Your task to perform on an android device: turn notification dots on Image 0: 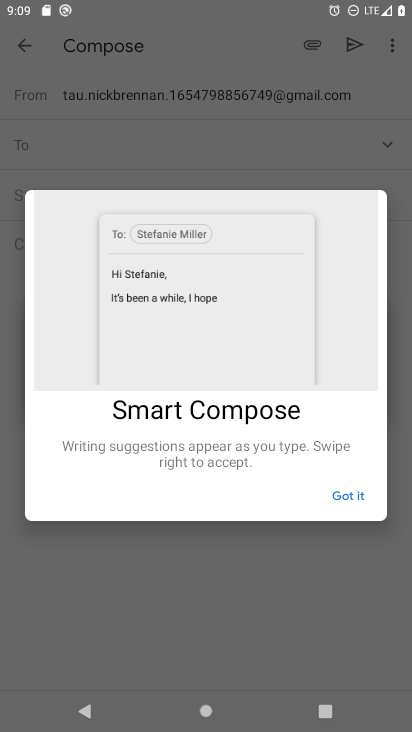
Step 0: press home button
Your task to perform on an android device: turn notification dots on Image 1: 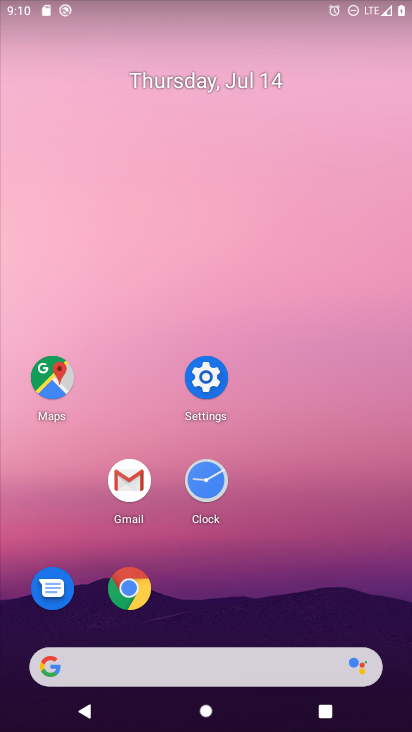
Step 1: click (203, 370)
Your task to perform on an android device: turn notification dots on Image 2: 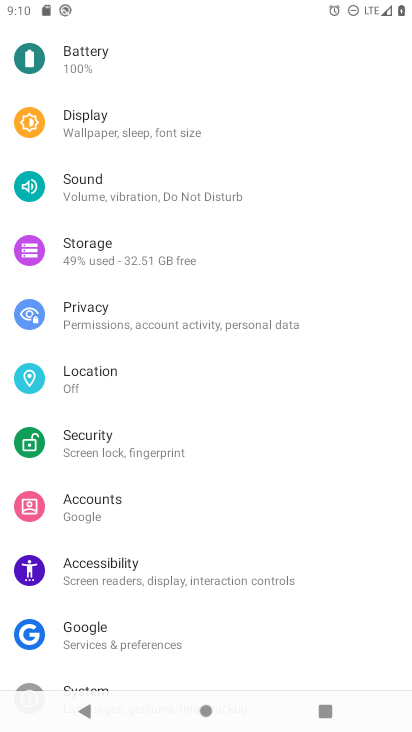
Step 2: drag from (198, 99) to (189, 500)
Your task to perform on an android device: turn notification dots on Image 3: 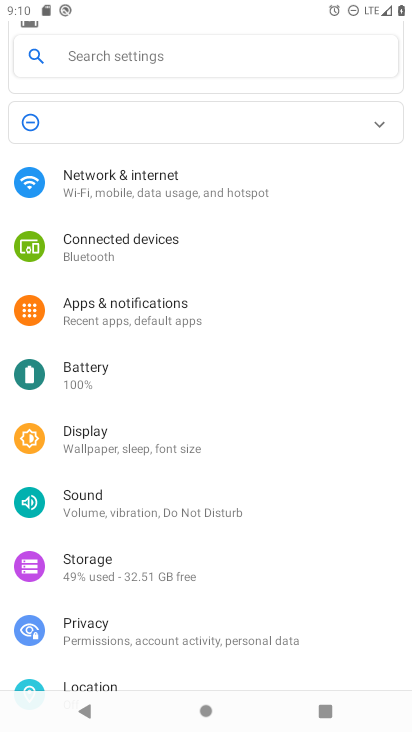
Step 3: click (113, 301)
Your task to perform on an android device: turn notification dots on Image 4: 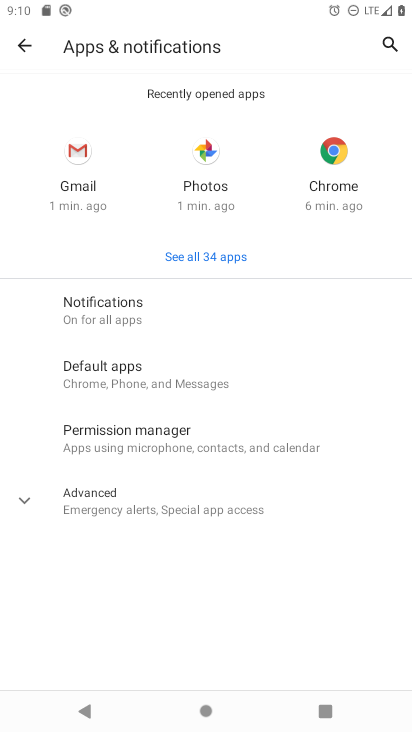
Step 4: click (78, 305)
Your task to perform on an android device: turn notification dots on Image 5: 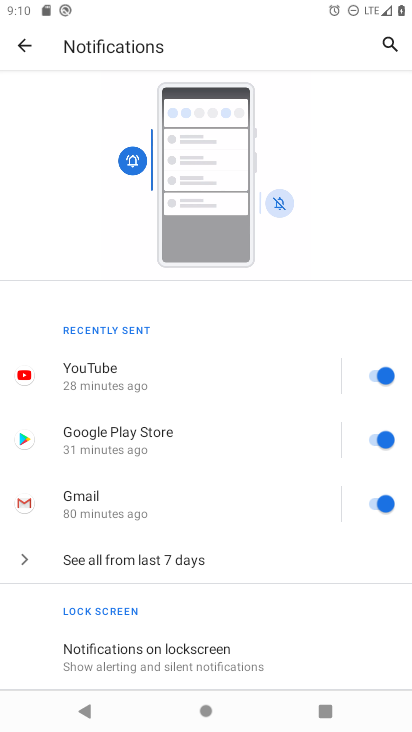
Step 5: drag from (259, 622) to (253, 257)
Your task to perform on an android device: turn notification dots on Image 6: 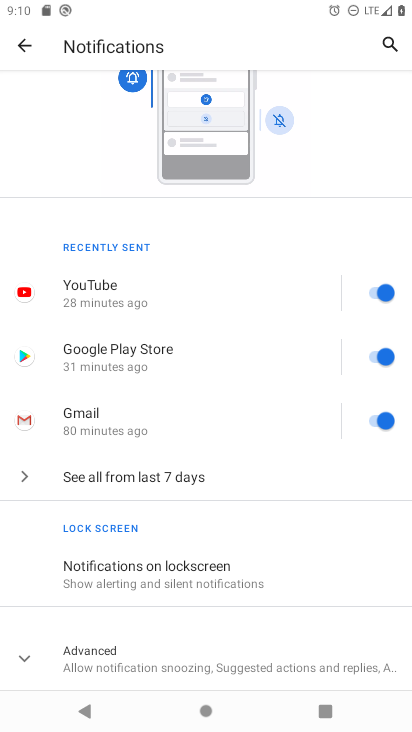
Step 6: click (29, 650)
Your task to perform on an android device: turn notification dots on Image 7: 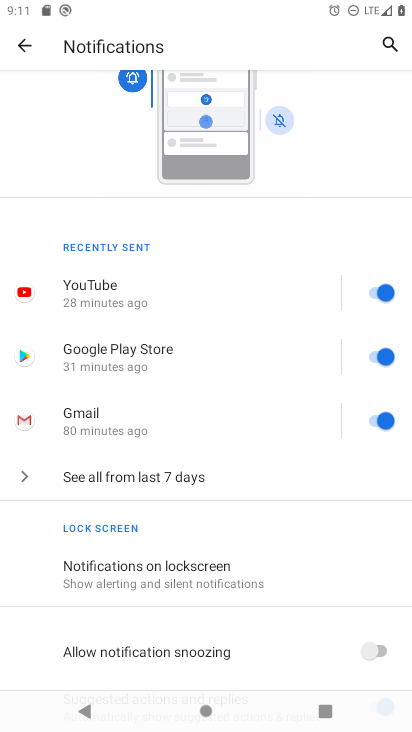
Step 7: drag from (323, 604) to (301, 271)
Your task to perform on an android device: turn notification dots on Image 8: 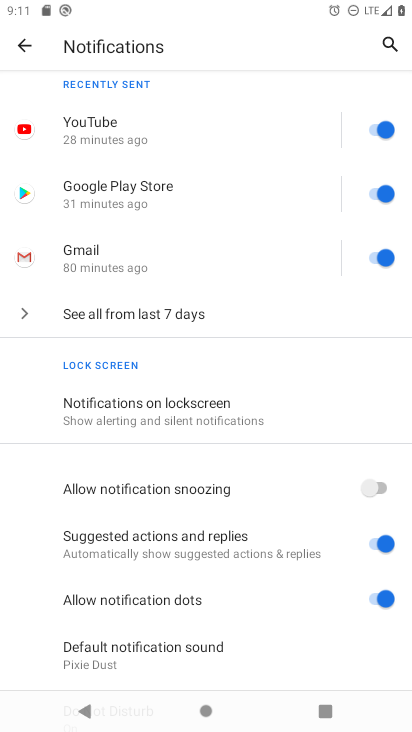
Step 8: click (375, 598)
Your task to perform on an android device: turn notification dots on Image 9: 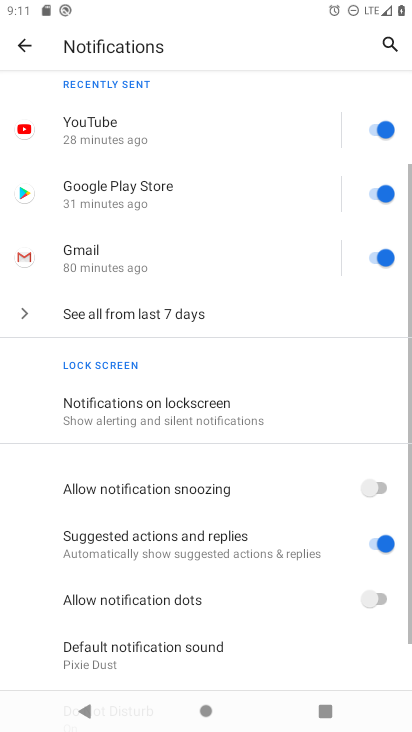
Step 9: click (375, 598)
Your task to perform on an android device: turn notification dots on Image 10: 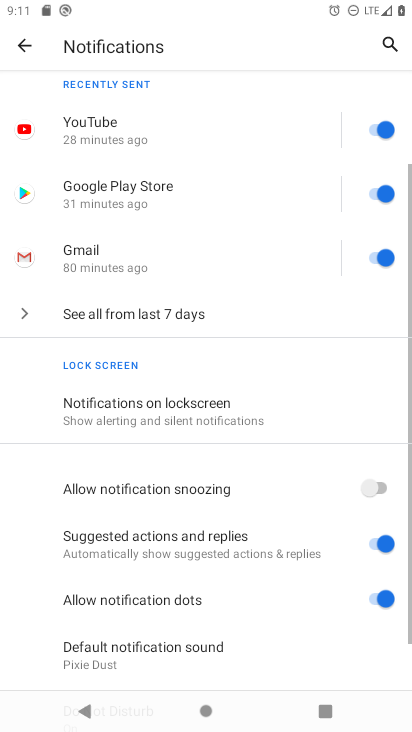
Step 10: task complete